Your task to perform on an android device: Search for vegetarian restaurants on Maps Image 0: 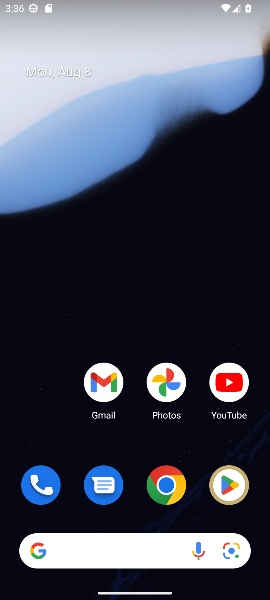
Step 0: drag from (133, 586) to (137, 220)
Your task to perform on an android device: Search for vegetarian restaurants on Maps Image 1: 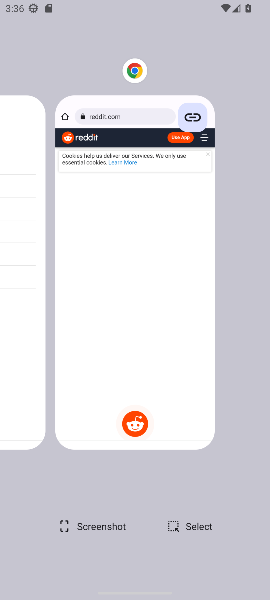
Step 1: drag from (131, 519) to (123, 310)
Your task to perform on an android device: Search for vegetarian restaurants on Maps Image 2: 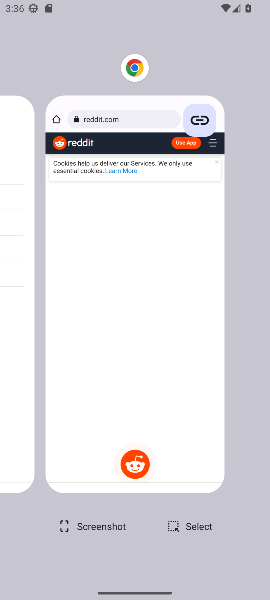
Step 2: press back button
Your task to perform on an android device: Search for vegetarian restaurants on Maps Image 3: 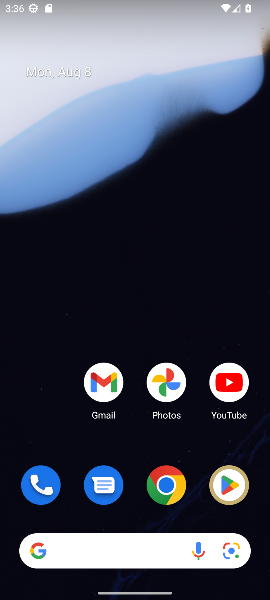
Step 3: press home button
Your task to perform on an android device: Search for vegetarian restaurants on Maps Image 4: 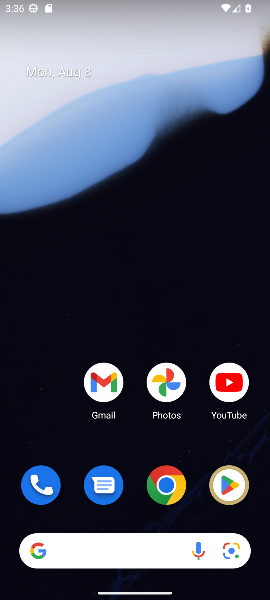
Step 4: drag from (85, 164) to (117, 281)
Your task to perform on an android device: Search for vegetarian restaurants on Maps Image 5: 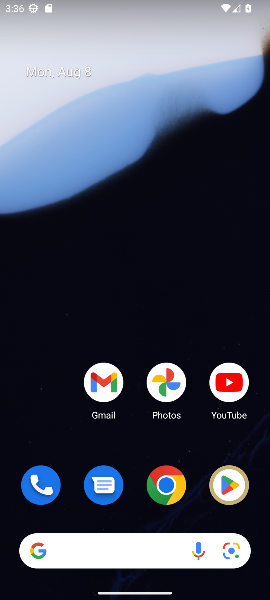
Step 5: click (126, 163)
Your task to perform on an android device: Search for vegetarian restaurants on Maps Image 6: 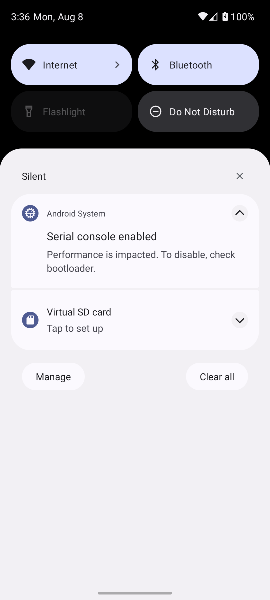
Step 6: drag from (140, 499) to (91, 161)
Your task to perform on an android device: Search for vegetarian restaurants on Maps Image 7: 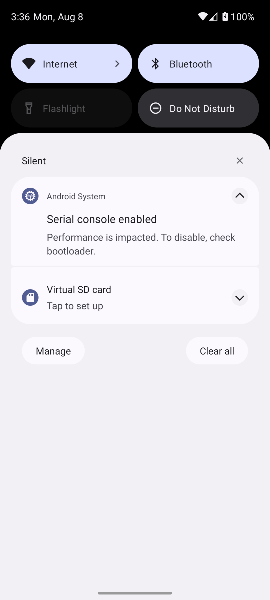
Step 7: drag from (131, 432) to (117, 234)
Your task to perform on an android device: Search for vegetarian restaurants on Maps Image 8: 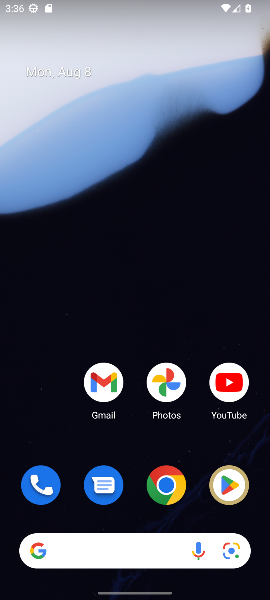
Step 8: press back button
Your task to perform on an android device: Search for vegetarian restaurants on Maps Image 9: 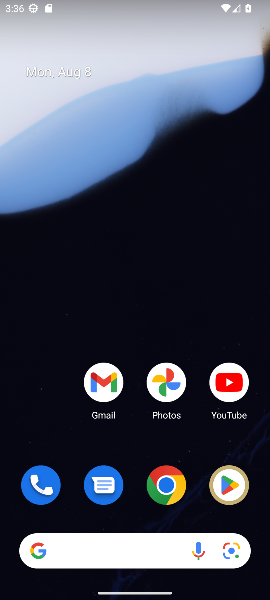
Step 9: drag from (135, 505) to (135, 190)
Your task to perform on an android device: Search for vegetarian restaurants on Maps Image 10: 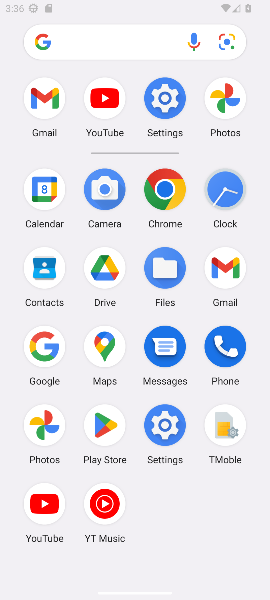
Step 10: drag from (155, 443) to (150, 179)
Your task to perform on an android device: Search for vegetarian restaurants on Maps Image 11: 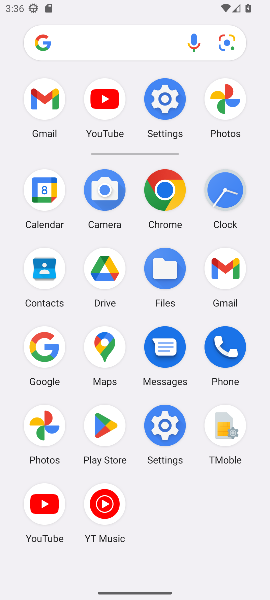
Step 11: click (101, 347)
Your task to perform on an android device: Search for vegetarian restaurants on Maps Image 12: 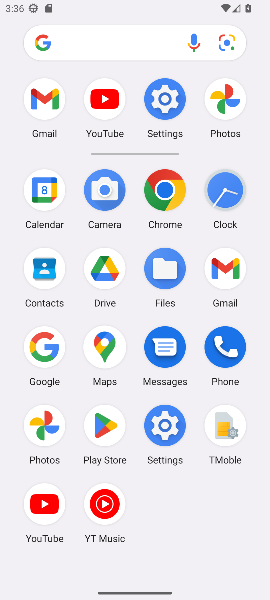
Step 12: click (101, 347)
Your task to perform on an android device: Search for vegetarian restaurants on Maps Image 13: 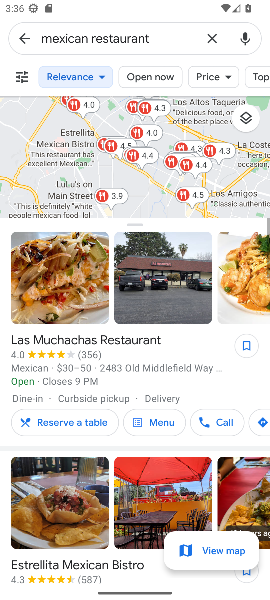
Step 13: click (105, 346)
Your task to perform on an android device: Search for vegetarian restaurants on Maps Image 14: 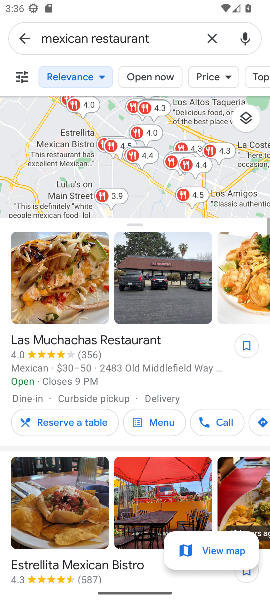
Step 14: click (211, 38)
Your task to perform on an android device: Search for vegetarian restaurants on Maps Image 15: 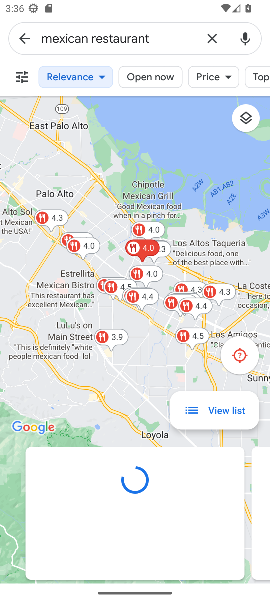
Step 15: click (205, 35)
Your task to perform on an android device: Search for vegetarian restaurants on Maps Image 16: 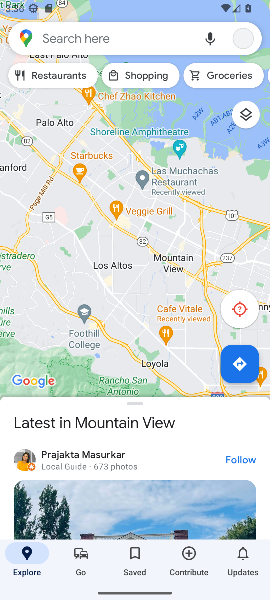
Step 16: click (58, 38)
Your task to perform on an android device: Search for vegetarian restaurants on Maps Image 17: 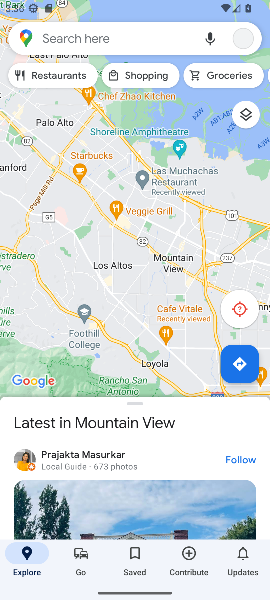
Step 17: click (58, 38)
Your task to perform on an android device: Search for vegetarian restaurants on Maps Image 18: 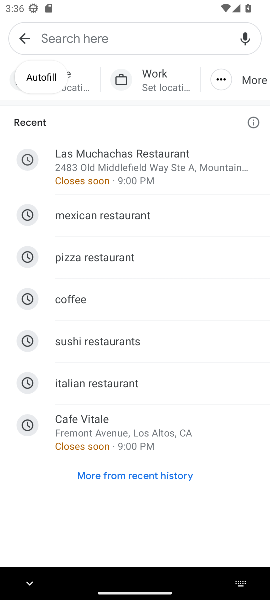
Step 18: type "vegetarian restaurats"
Your task to perform on an android device: Search for vegetarian restaurants on Maps Image 19: 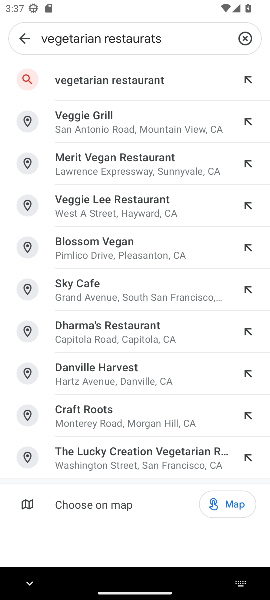
Step 19: click (107, 79)
Your task to perform on an android device: Search for vegetarian restaurants on Maps Image 20: 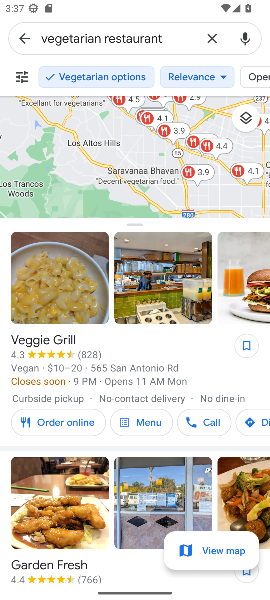
Step 20: task complete